Your task to perform on an android device: turn smart compose on in the gmail app Image 0: 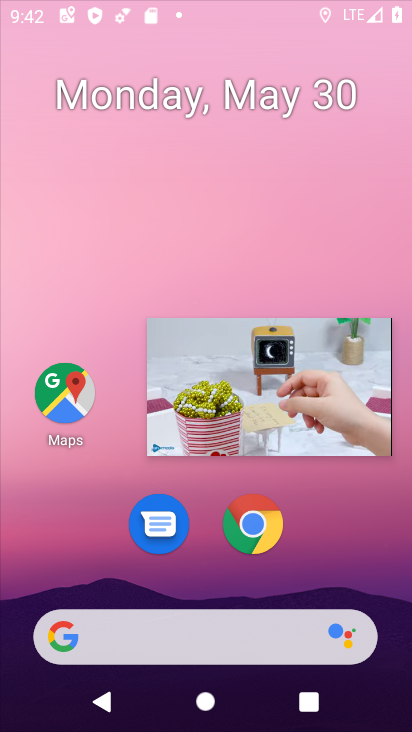
Step 0: drag from (327, 561) to (173, 726)
Your task to perform on an android device: turn smart compose on in the gmail app Image 1: 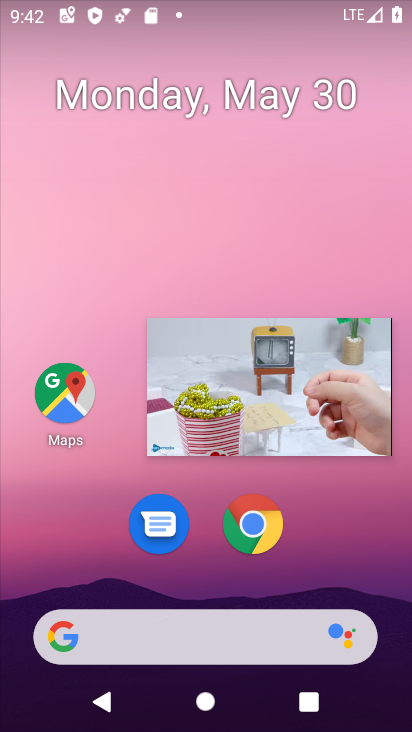
Step 1: drag from (299, 385) to (408, 367)
Your task to perform on an android device: turn smart compose on in the gmail app Image 2: 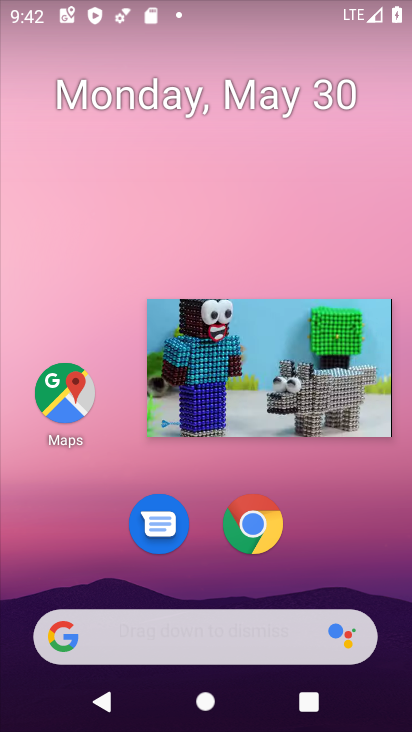
Step 2: drag from (277, 433) to (411, 535)
Your task to perform on an android device: turn smart compose on in the gmail app Image 3: 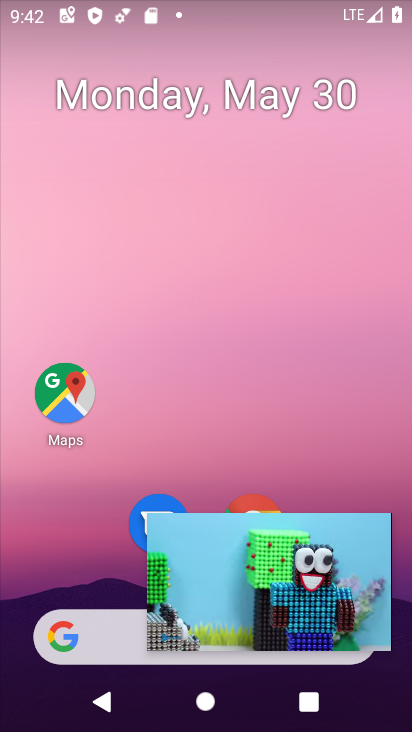
Step 3: drag from (258, 640) to (408, 622)
Your task to perform on an android device: turn smart compose on in the gmail app Image 4: 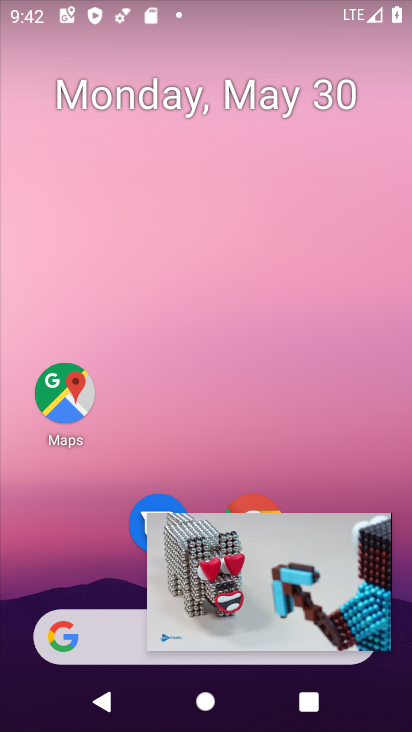
Step 4: click (288, 575)
Your task to perform on an android device: turn smart compose on in the gmail app Image 5: 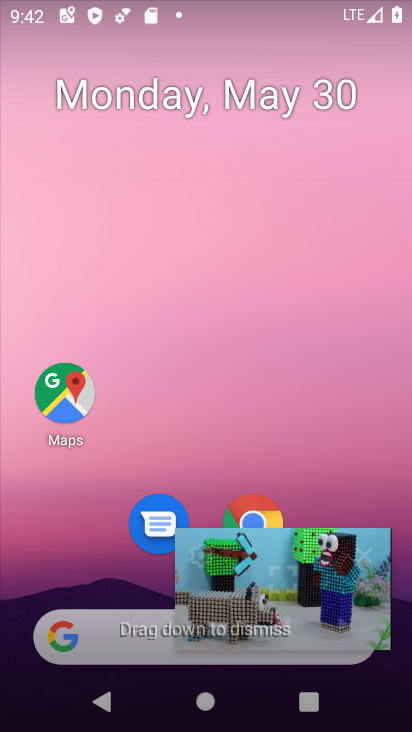
Step 5: drag from (294, 574) to (330, 587)
Your task to perform on an android device: turn smart compose on in the gmail app Image 6: 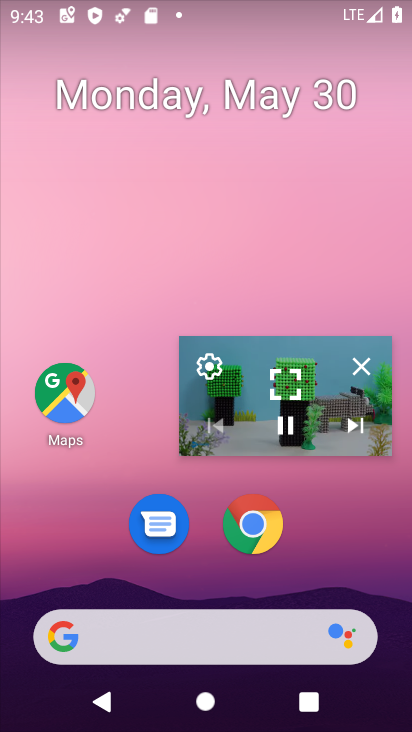
Step 6: click (360, 561)
Your task to perform on an android device: turn smart compose on in the gmail app Image 7: 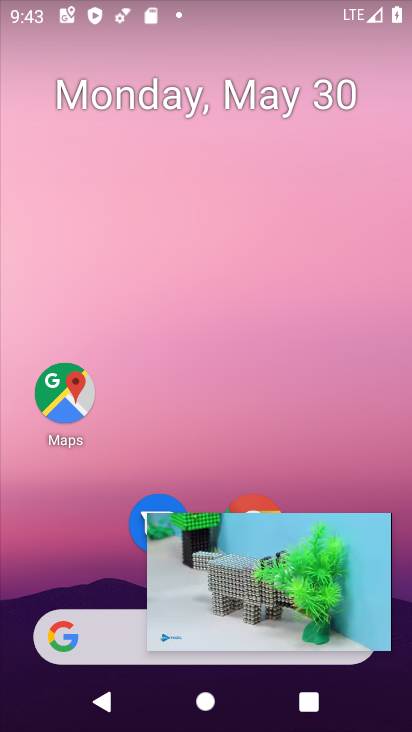
Step 7: click (361, 545)
Your task to perform on an android device: turn smart compose on in the gmail app Image 8: 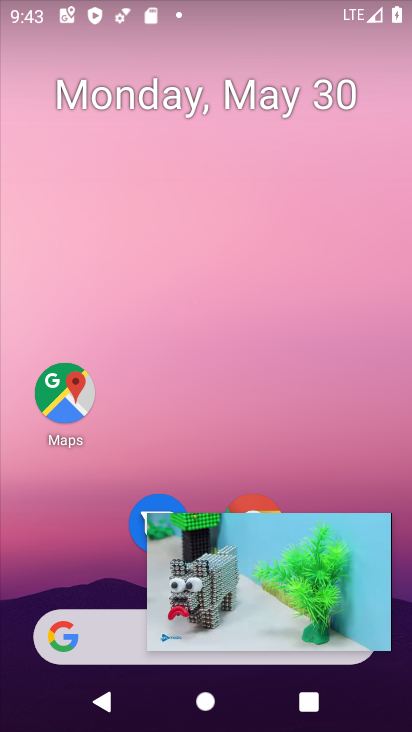
Step 8: click (337, 537)
Your task to perform on an android device: turn smart compose on in the gmail app Image 9: 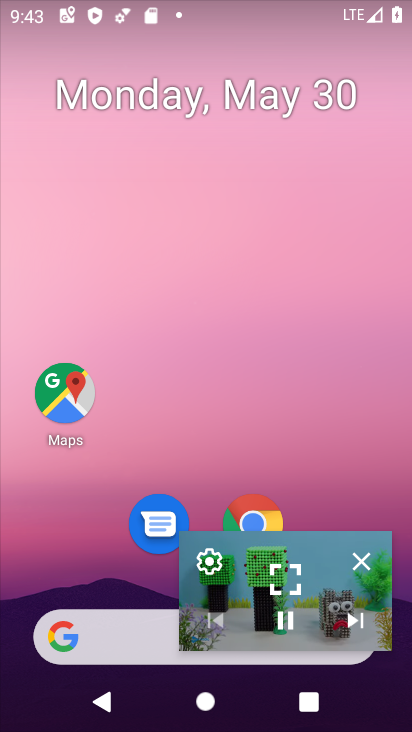
Step 9: click (357, 539)
Your task to perform on an android device: turn smart compose on in the gmail app Image 10: 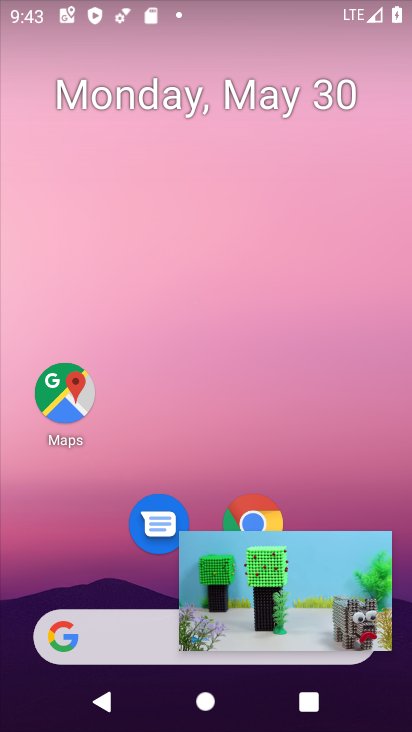
Step 10: click (369, 556)
Your task to perform on an android device: turn smart compose on in the gmail app Image 11: 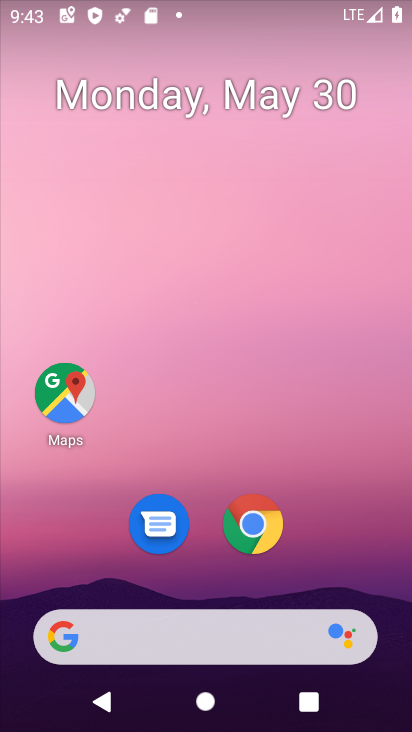
Step 11: drag from (329, 474) to (318, 18)
Your task to perform on an android device: turn smart compose on in the gmail app Image 12: 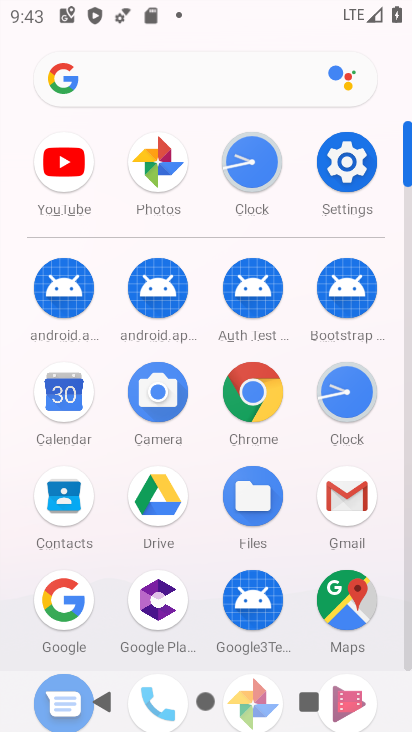
Step 12: click (360, 501)
Your task to perform on an android device: turn smart compose on in the gmail app Image 13: 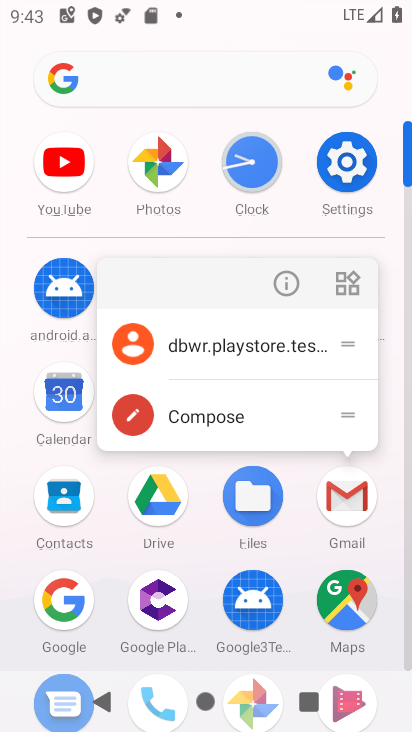
Step 13: click (349, 498)
Your task to perform on an android device: turn smart compose on in the gmail app Image 14: 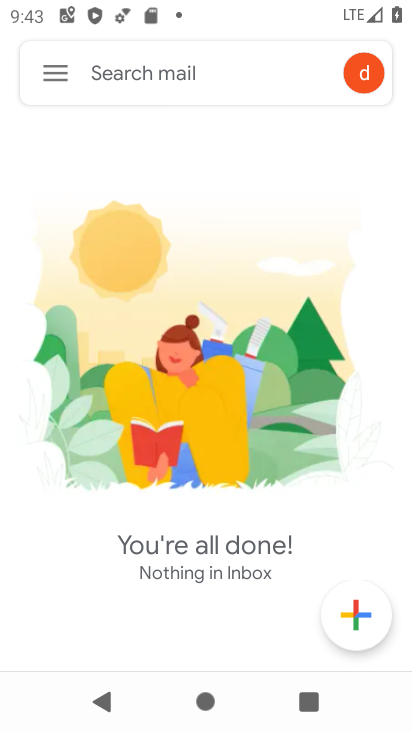
Step 14: click (55, 72)
Your task to perform on an android device: turn smart compose on in the gmail app Image 15: 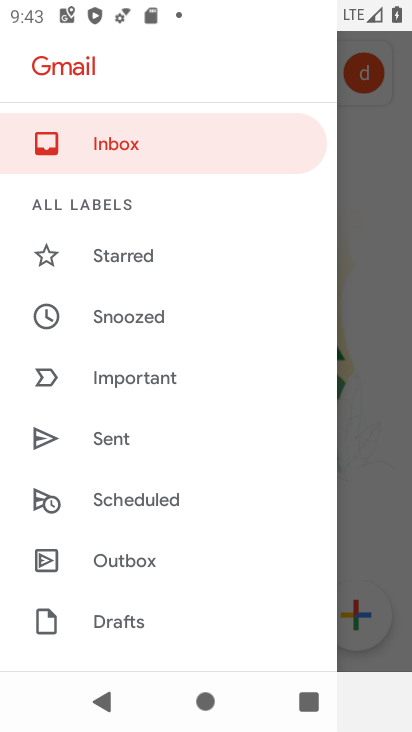
Step 15: drag from (199, 549) to (238, 0)
Your task to perform on an android device: turn smart compose on in the gmail app Image 16: 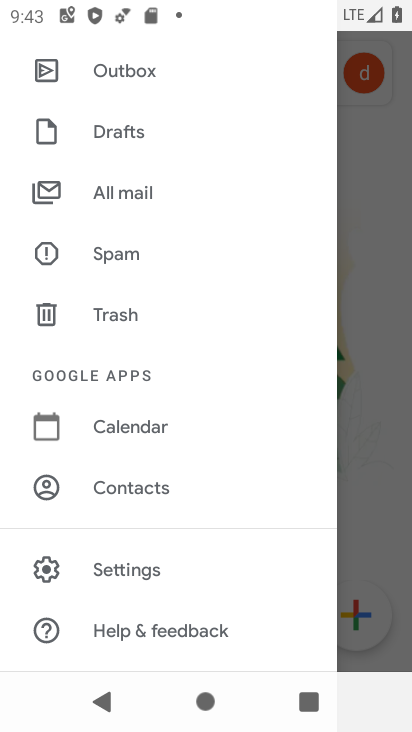
Step 16: click (163, 563)
Your task to perform on an android device: turn smart compose on in the gmail app Image 17: 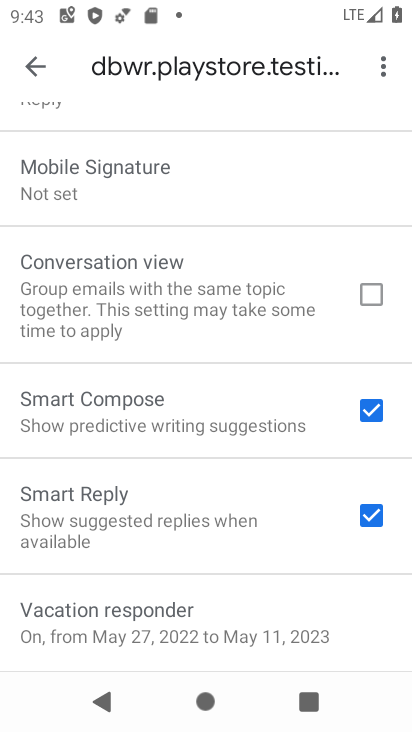
Step 17: task complete